Your task to perform on an android device: Go to calendar. Show me events next week Image 0: 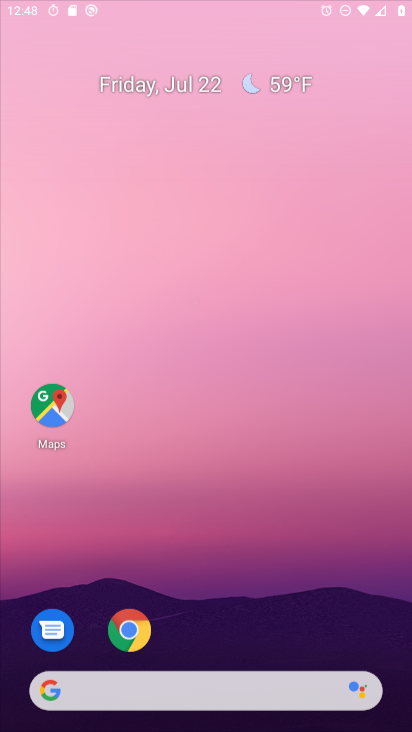
Step 0: press home button
Your task to perform on an android device: Go to calendar. Show me events next week Image 1: 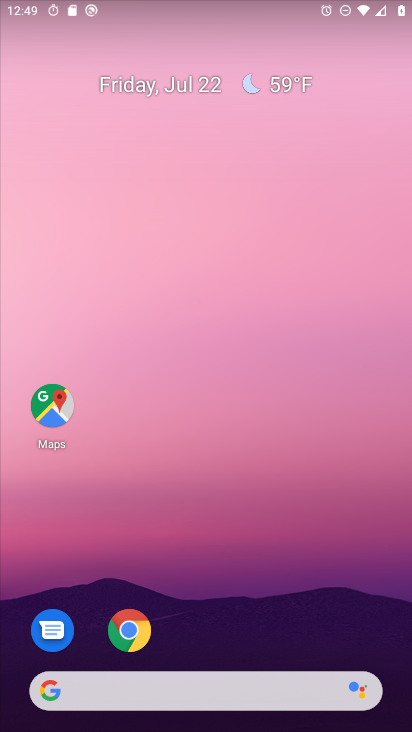
Step 1: drag from (217, 650) to (129, 213)
Your task to perform on an android device: Go to calendar. Show me events next week Image 2: 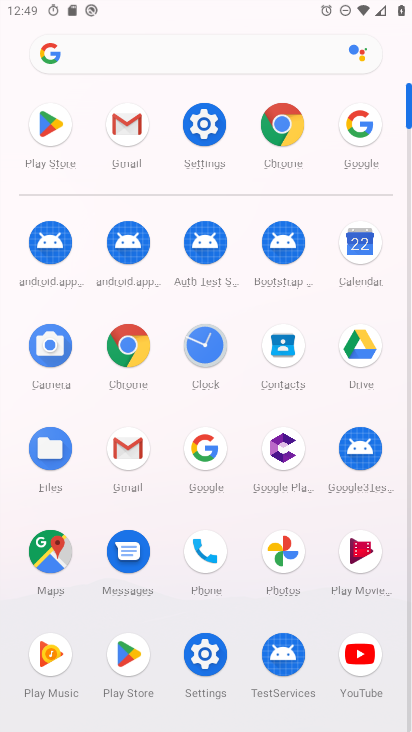
Step 2: click (360, 248)
Your task to perform on an android device: Go to calendar. Show me events next week Image 3: 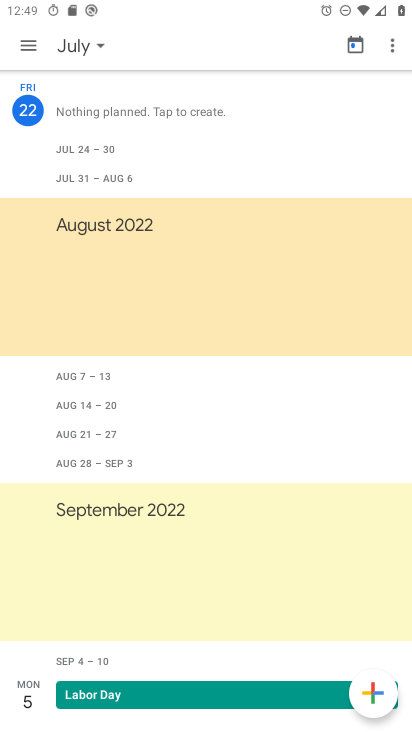
Step 3: click (73, 52)
Your task to perform on an android device: Go to calendar. Show me events next week Image 4: 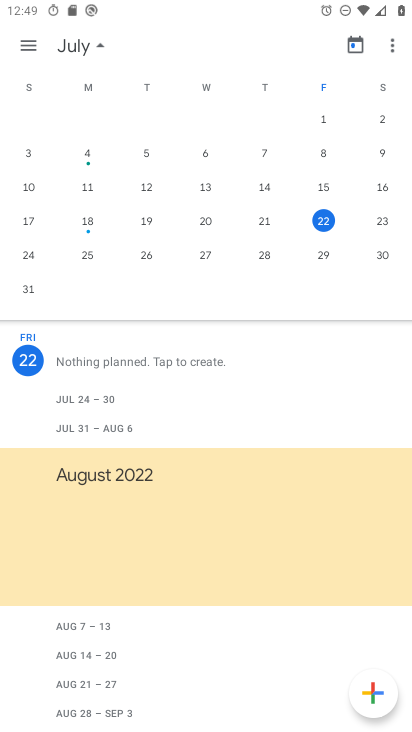
Step 4: click (28, 36)
Your task to perform on an android device: Go to calendar. Show me events next week Image 5: 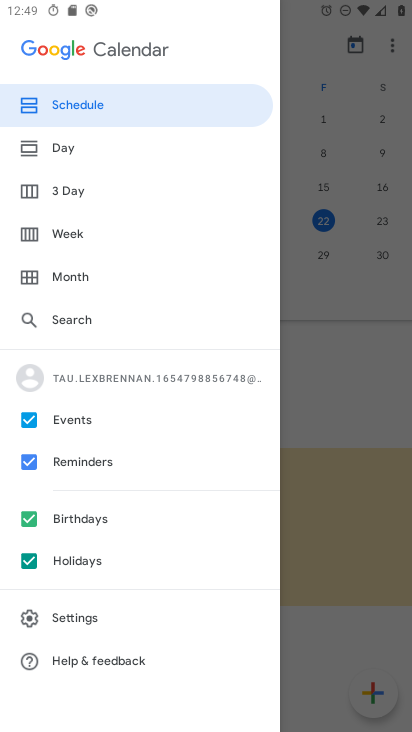
Step 5: click (66, 233)
Your task to perform on an android device: Go to calendar. Show me events next week Image 6: 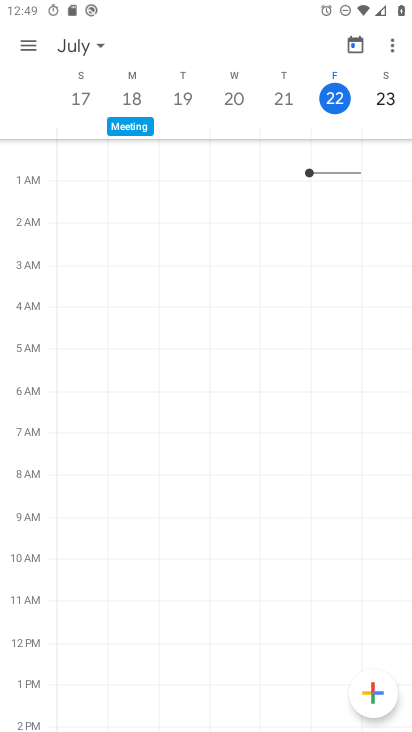
Step 6: task complete